Your task to perform on an android device: turn off airplane mode Image 0: 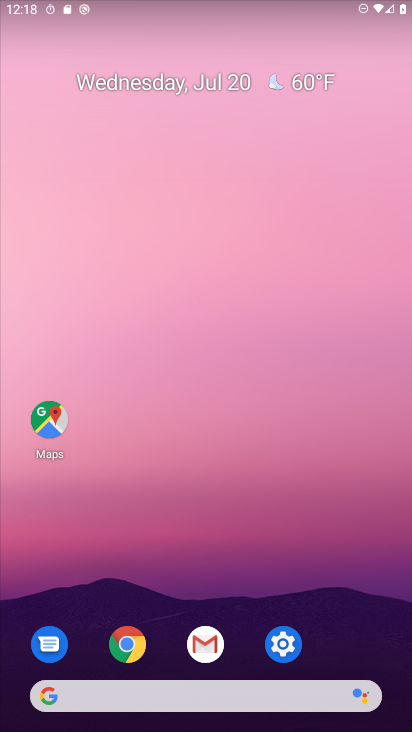
Step 0: press home button
Your task to perform on an android device: turn off airplane mode Image 1: 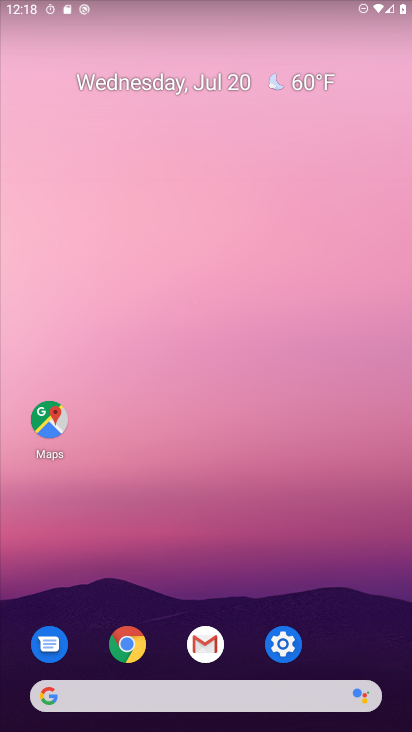
Step 1: click (279, 654)
Your task to perform on an android device: turn off airplane mode Image 2: 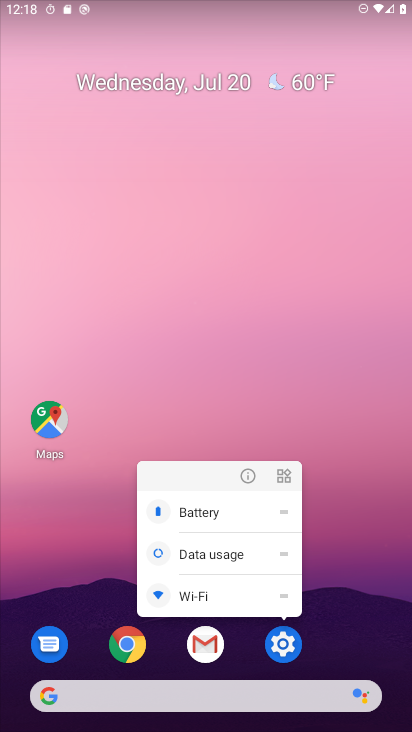
Step 2: click (291, 648)
Your task to perform on an android device: turn off airplane mode Image 3: 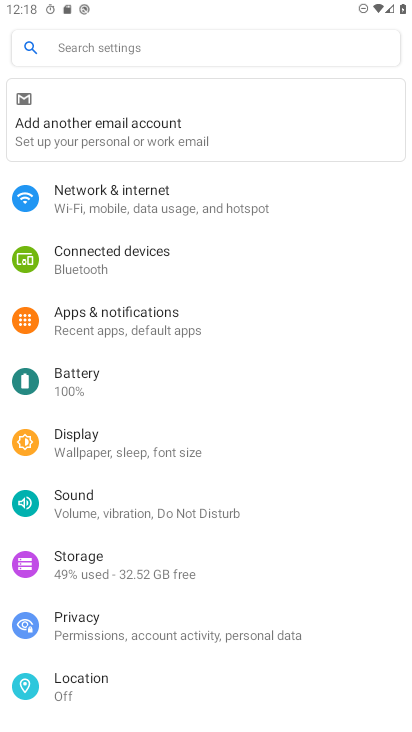
Step 3: click (186, 200)
Your task to perform on an android device: turn off airplane mode Image 4: 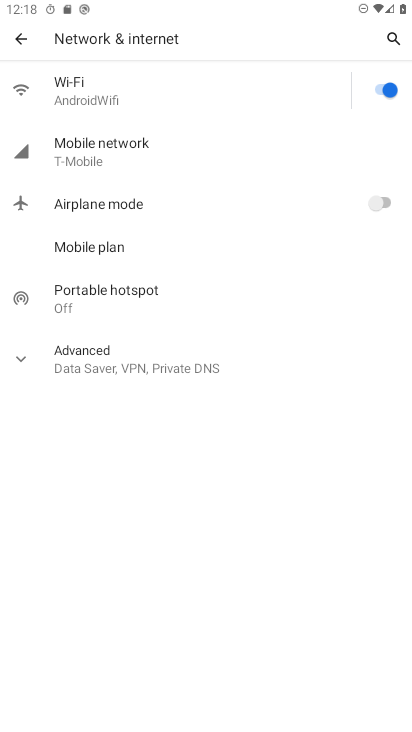
Step 4: click (371, 201)
Your task to perform on an android device: turn off airplane mode Image 5: 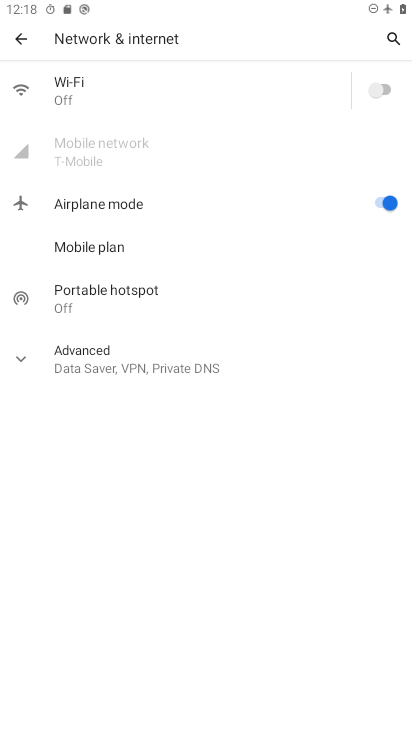
Step 5: click (371, 201)
Your task to perform on an android device: turn off airplane mode Image 6: 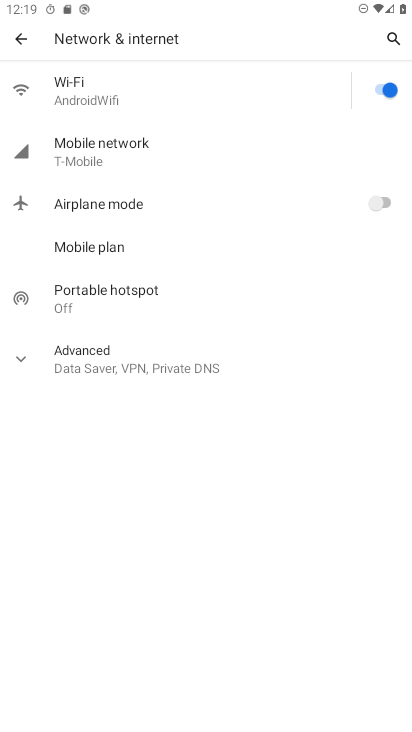
Step 6: task complete